Your task to perform on an android device: toggle priority inbox in the gmail app Image 0: 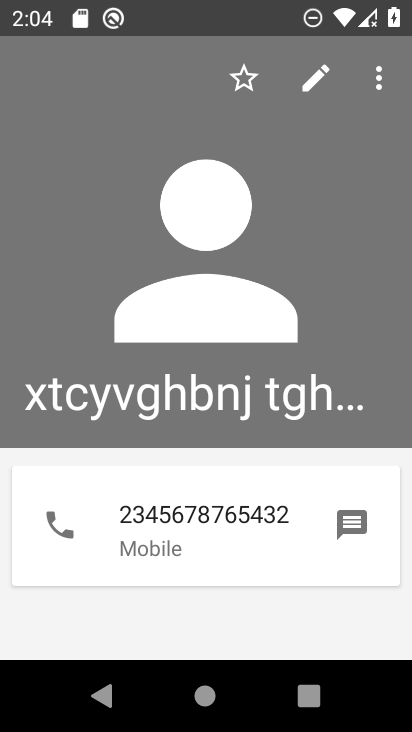
Step 0: press home button
Your task to perform on an android device: toggle priority inbox in the gmail app Image 1: 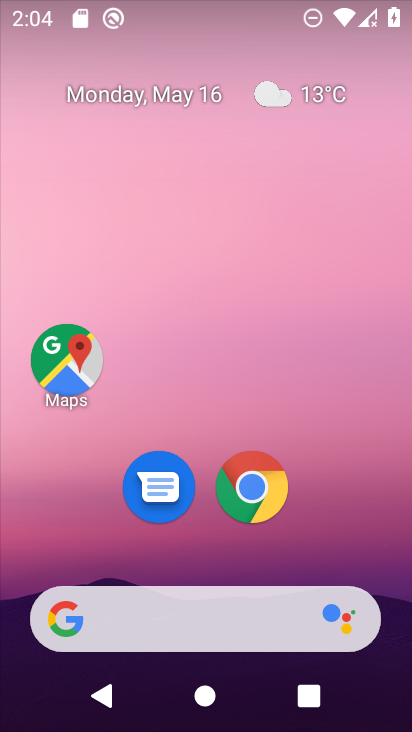
Step 1: drag from (401, 587) to (350, 302)
Your task to perform on an android device: toggle priority inbox in the gmail app Image 2: 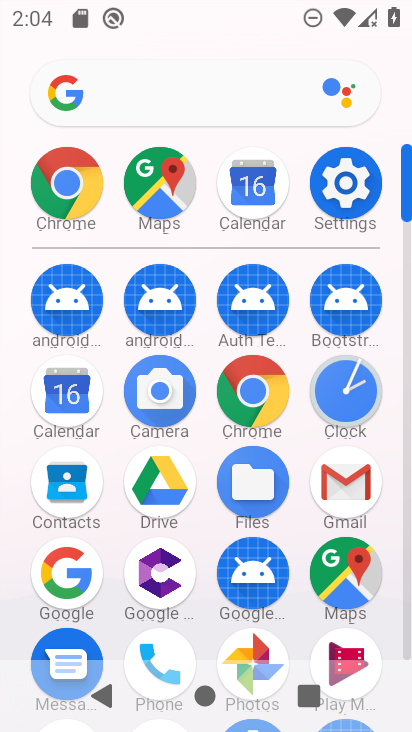
Step 2: click (352, 488)
Your task to perform on an android device: toggle priority inbox in the gmail app Image 3: 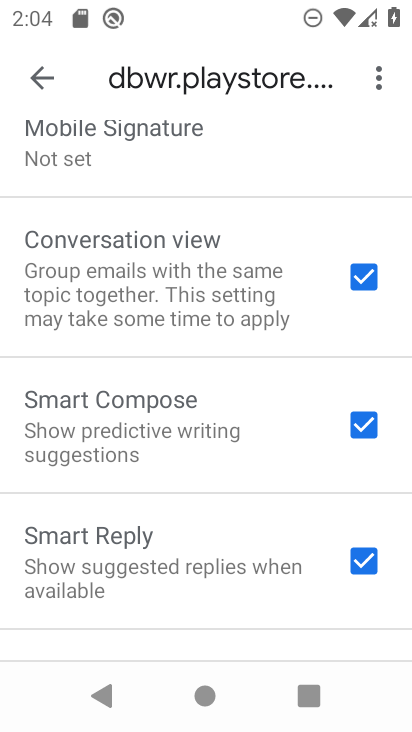
Step 3: click (38, 87)
Your task to perform on an android device: toggle priority inbox in the gmail app Image 4: 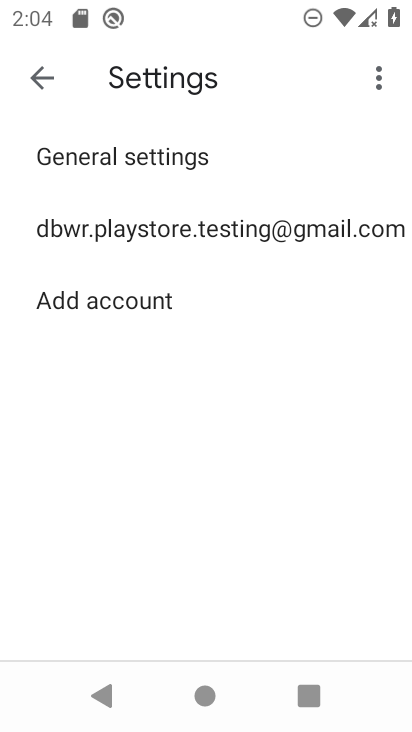
Step 4: click (98, 224)
Your task to perform on an android device: toggle priority inbox in the gmail app Image 5: 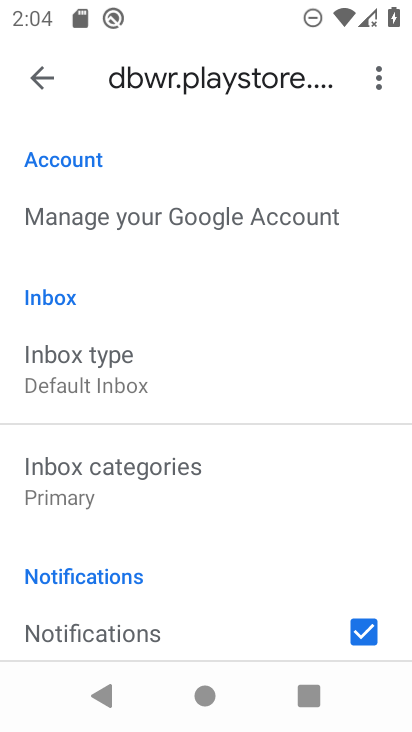
Step 5: click (60, 483)
Your task to perform on an android device: toggle priority inbox in the gmail app Image 6: 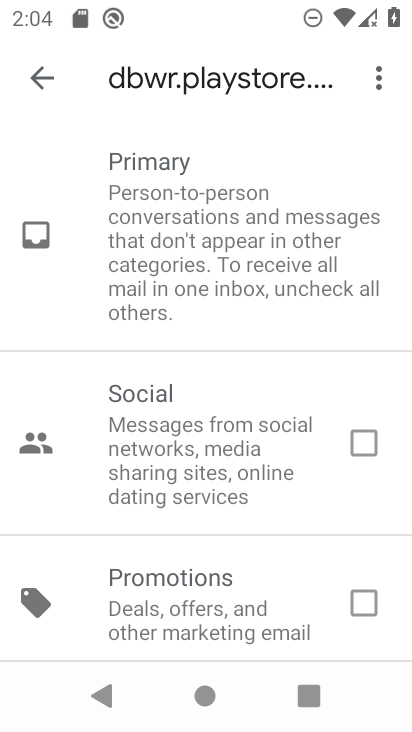
Step 6: click (31, 74)
Your task to perform on an android device: toggle priority inbox in the gmail app Image 7: 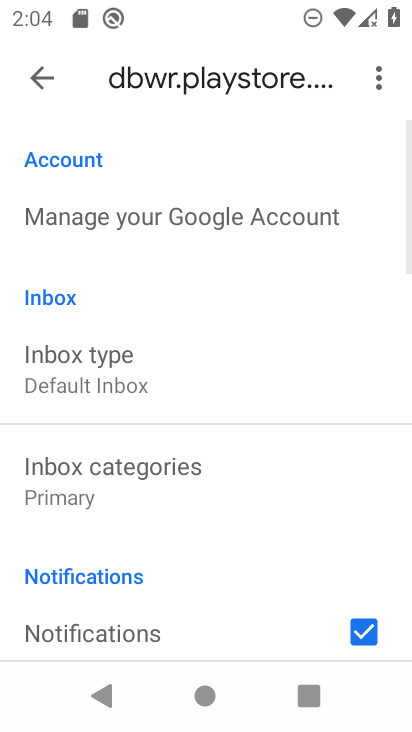
Step 7: click (88, 375)
Your task to perform on an android device: toggle priority inbox in the gmail app Image 8: 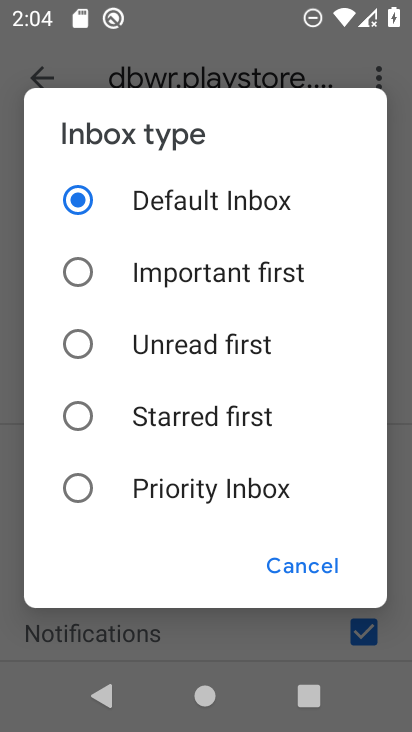
Step 8: click (81, 484)
Your task to perform on an android device: toggle priority inbox in the gmail app Image 9: 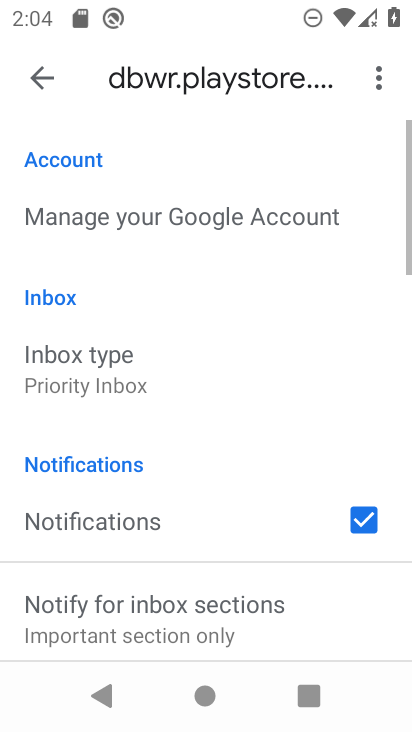
Step 9: task complete